Your task to perform on an android device: check battery use Image 0: 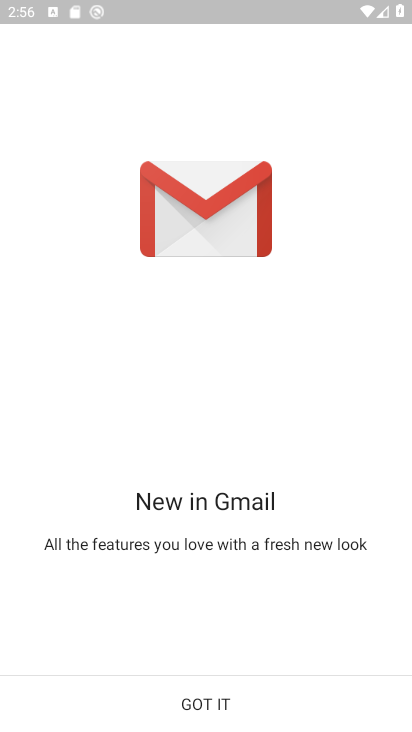
Step 0: press home button
Your task to perform on an android device: check battery use Image 1: 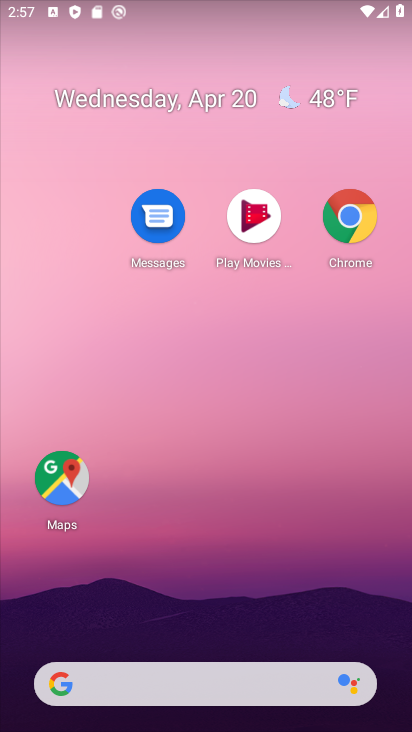
Step 1: drag from (214, 478) to (198, 0)
Your task to perform on an android device: check battery use Image 2: 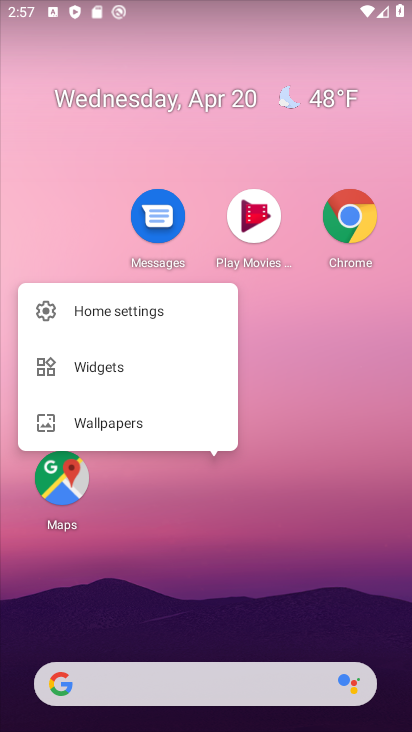
Step 2: click (303, 578)
Your task to perform on an android device: check battery use Image 3: 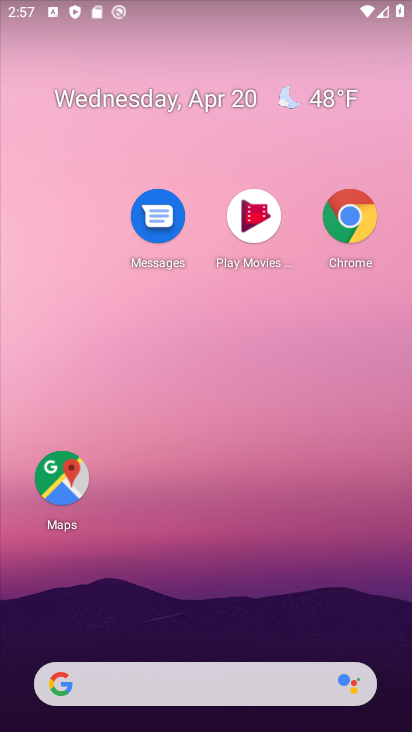
Step 3: drag from (218, 578) to (226, 120)
Your task to perform on an android device: check battery use Image 4: 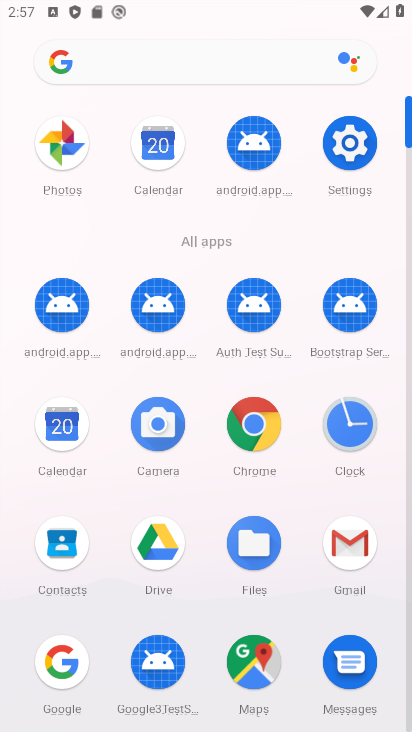
Step 4: click (348, 154)
Your task to perform on an android device: check battery use Image 5: 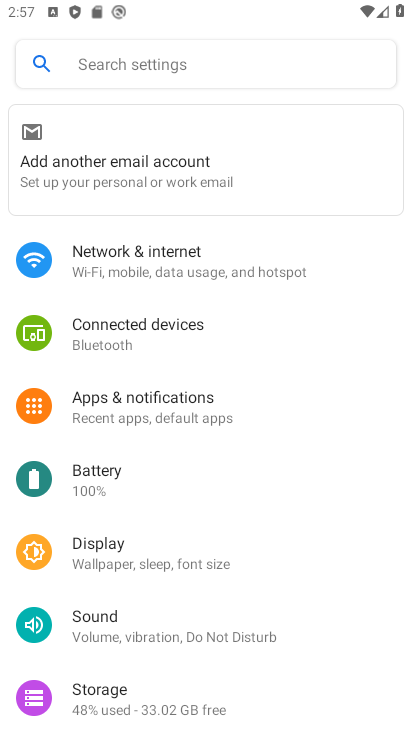
Step 5: click (137, 485)
Your task to perform on an android device: check battery use Image 6: 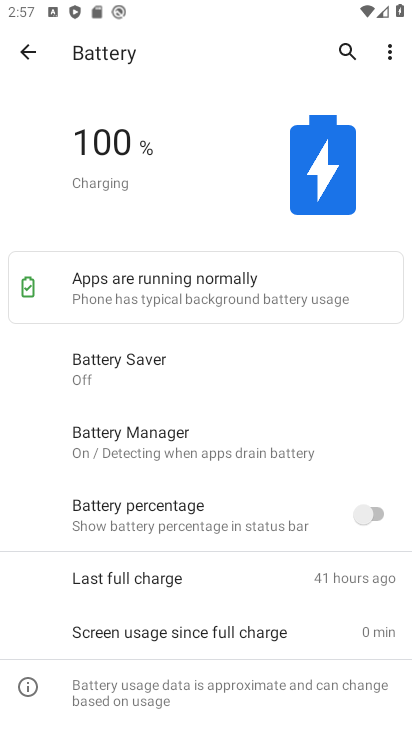
Step 6: click (389, 53)
Your task to perform on an android device: check battery use Image 7: 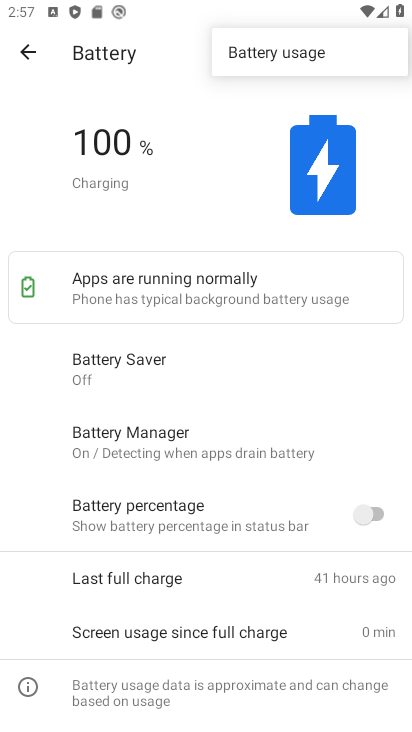
Step 7: click (287, 61)
Your task to perform on an android device: check battery use Image 8: 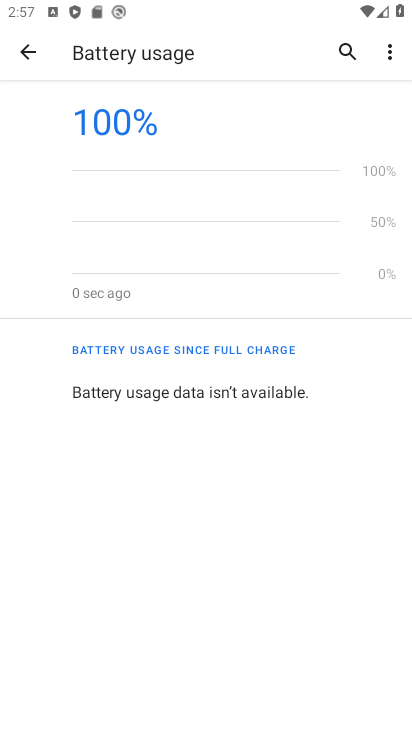
Step 8: task complete